Your task to perform on an android device: turn pop-ups on in chrome Image 0: 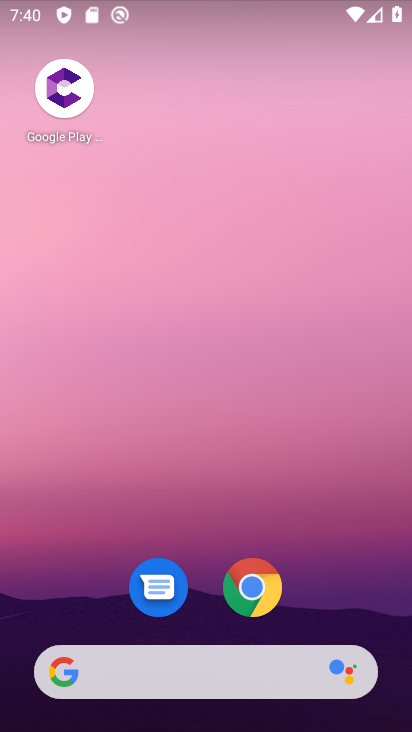
Step 0: click (261, 590)
Your task to perform on an android device: turn pop-ups on in chrome Image 1: 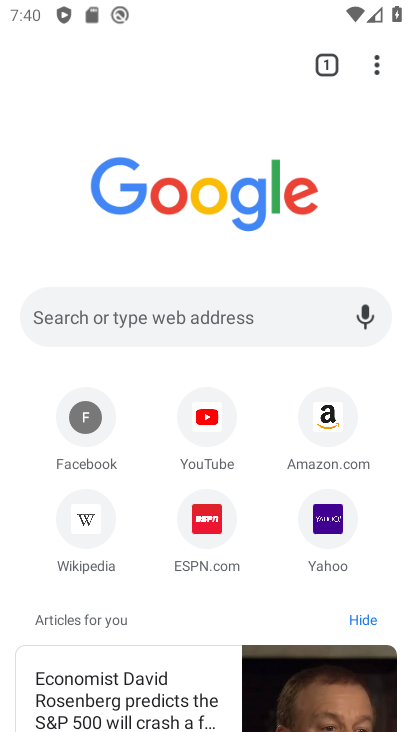
Step 1: click (378, 69)
Your task to perform on an android device: turn pop-ups on in chrome Image 2: 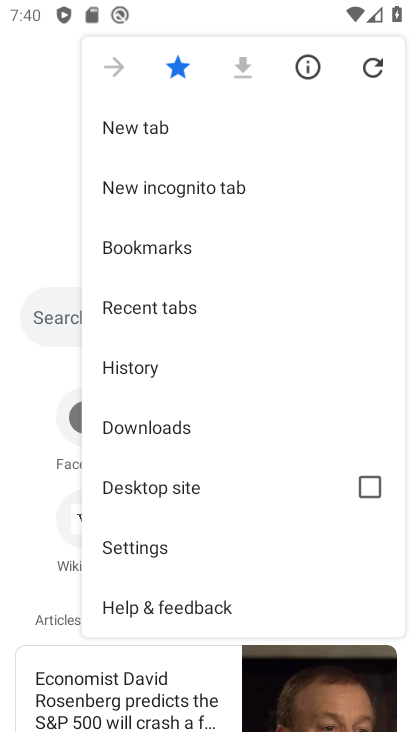
Step 2: click (236, 549)
Your task to perform on an android device: turn pop-ups on in chrome Image 3: 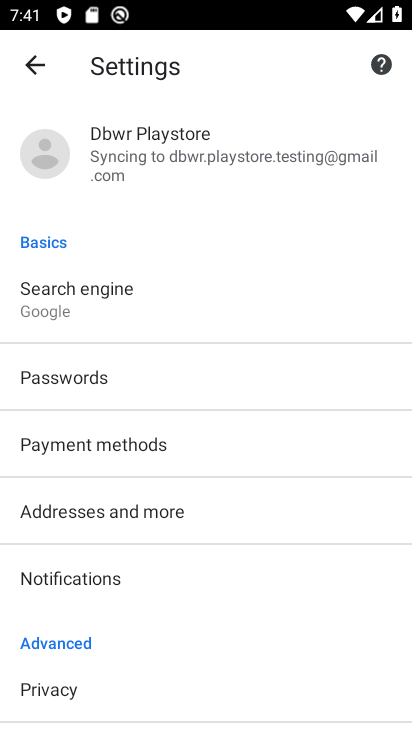
Step 3: drag from (164, 669) to (208, 175)
Your task to perform on an android device: turn pop-ups on in chrome Image 4: 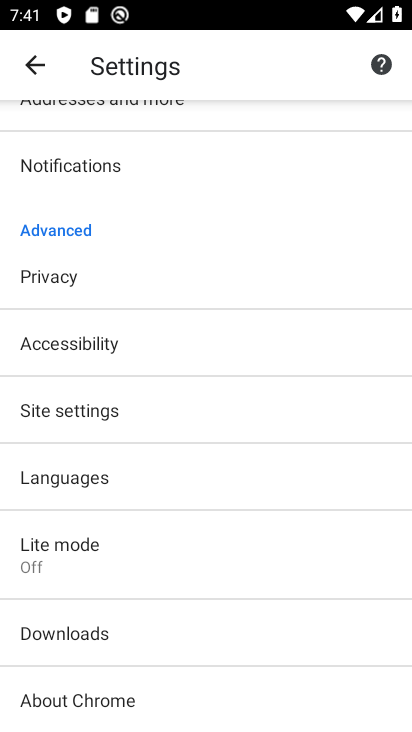
Step 4: click (138, 410)
Your task to perform on an android device: turn pop-ups on in chrome Image 5: 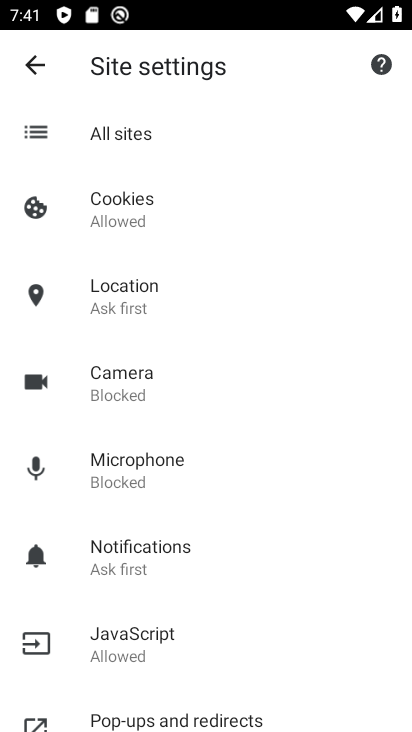
Step 5: drag from (184, 671) to (199, 302)
Your task to perform on an android device: turn pop-ups on in chrome Image 6: 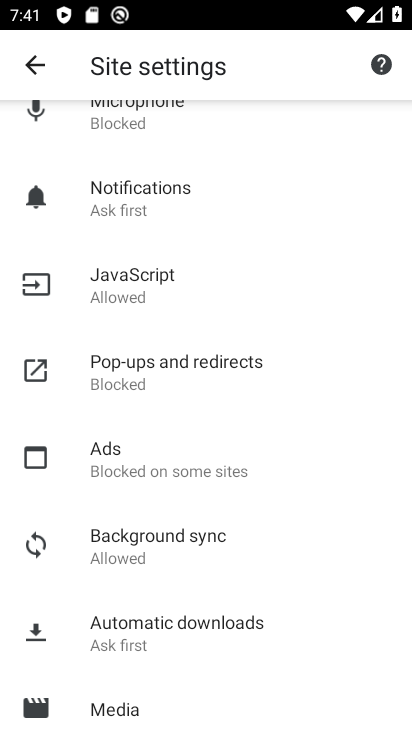
Step 6: click (177, 390)
Your task to perform on an android device: turn pop-ups on in chrome Image 7: 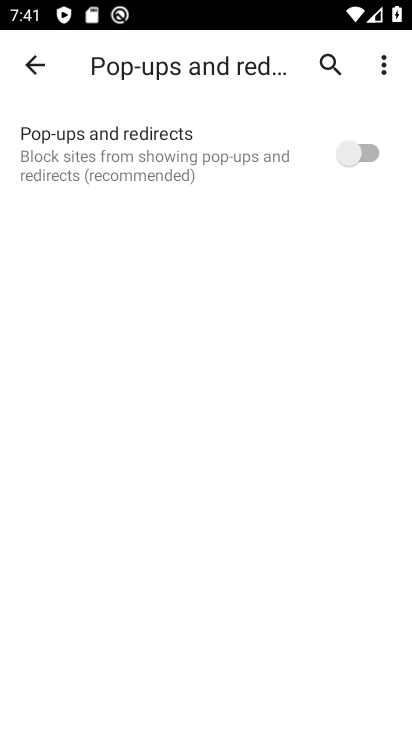
Step 7: click (352, 156)
Your task to perform on an android device: turn pop-ups on in chrome Image 8: 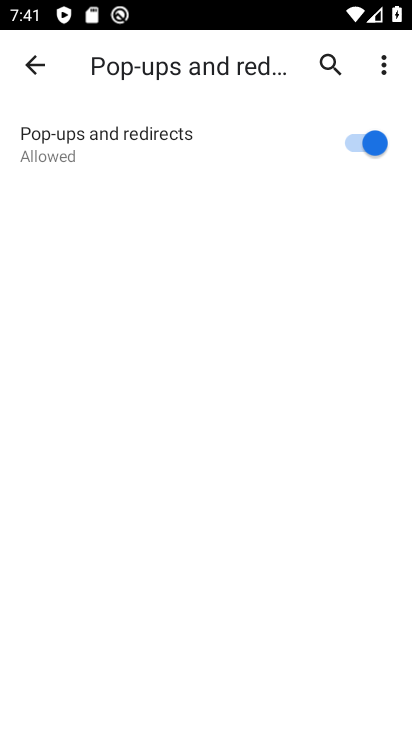
Step 8: task complete